Your task to perform on an android device: open the mobile data screen to see how much data has been used Image 0: 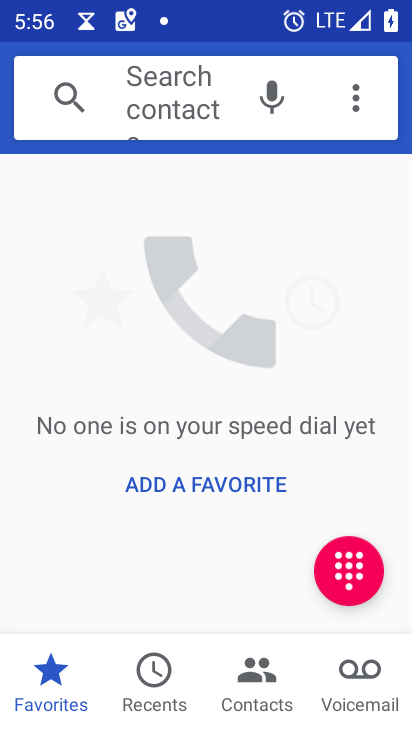
Step 0: press home button
Your task to perform on an android device: open the mobile data screen to see how much data has been used Image 1: 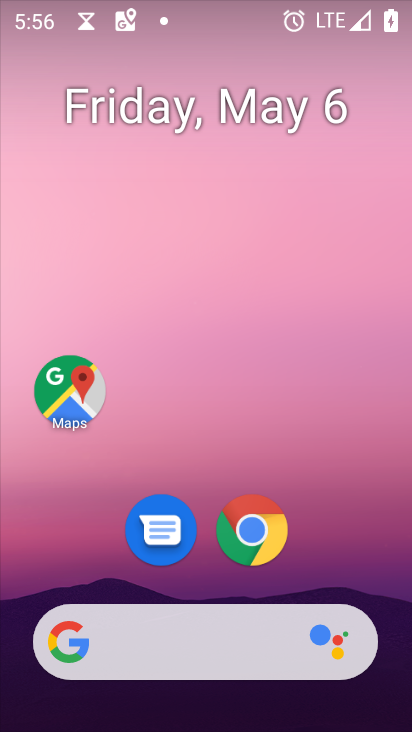
Step 1: drag from (329, 524) to (194, 34)
Your task to perform on an android device: open the mobile data screen to see how much data has been used Image 2: 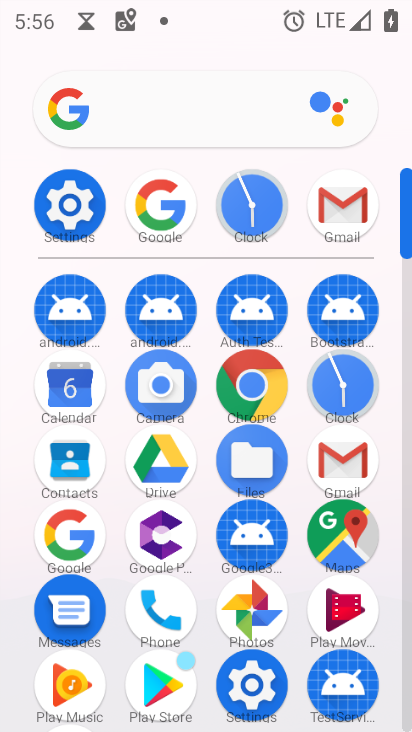
Step 2: click (74, 212)
Your task to perform on an android device: open the mobile data screen to see how much data has been used Image 3: 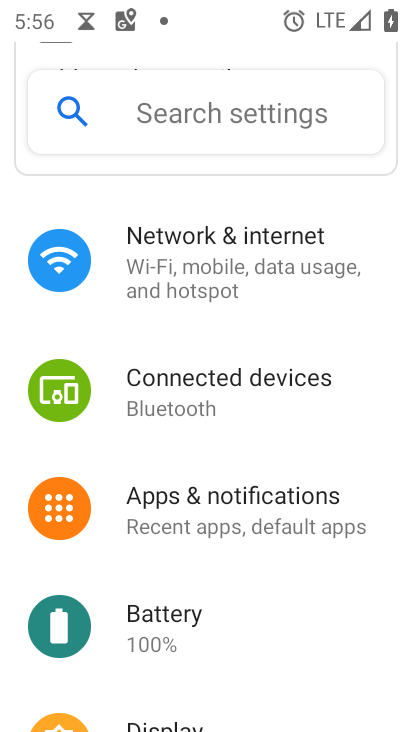
Step 3: click (174, 251)
Your task to perform on an android device: open the mobile data screen to see how much data has been used Image 4: 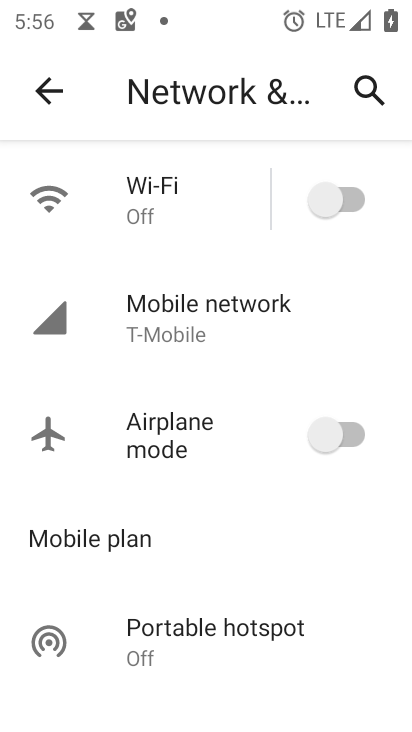
Step 4: click (222, 306)
Your task to perform on an android device: open the mobile data screen to see how much data has been used Image 5: 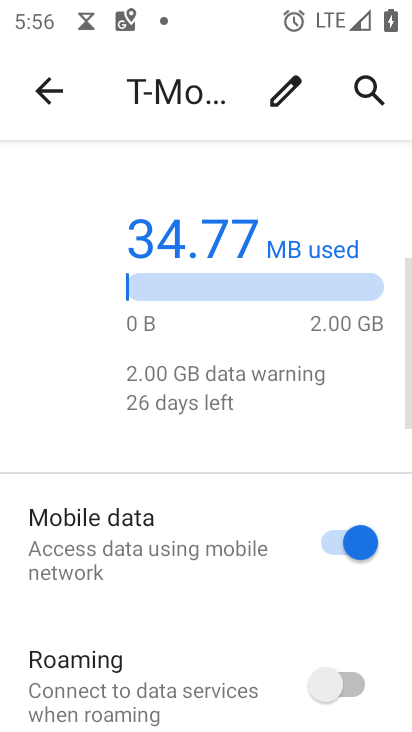
Step 5: task complete